Your task to perform on an android device: Show me popular videos on Youtube Image 0: 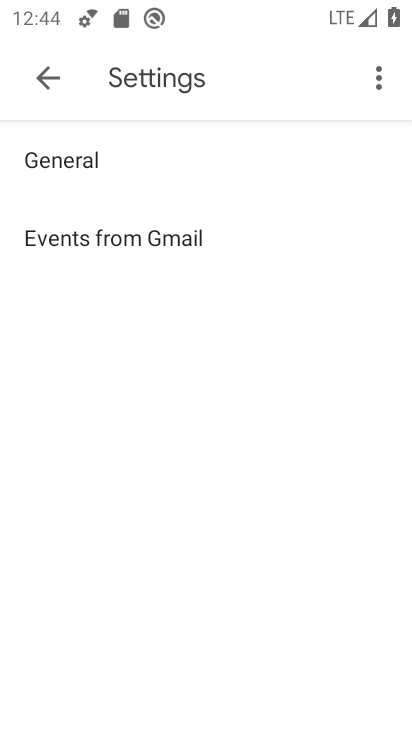
Step 0: press home button
Your task to perform on an android device: Show me popular videos on Youtube Image 1: 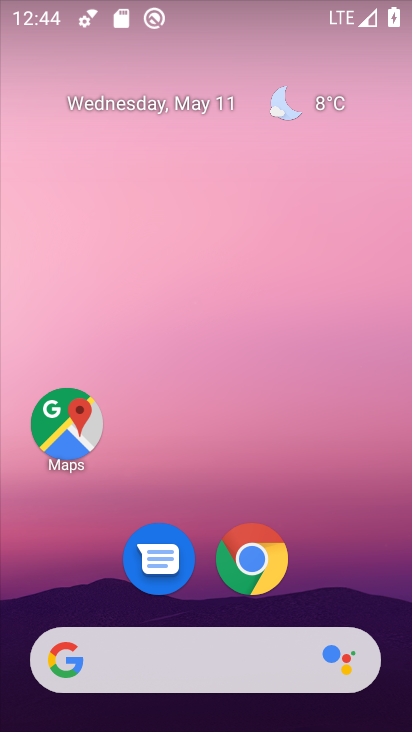
Step 1: drag from (194, 720) to (194, 147)
Your task to perform on an android device: Show me popular videos on Youtube Image 2: 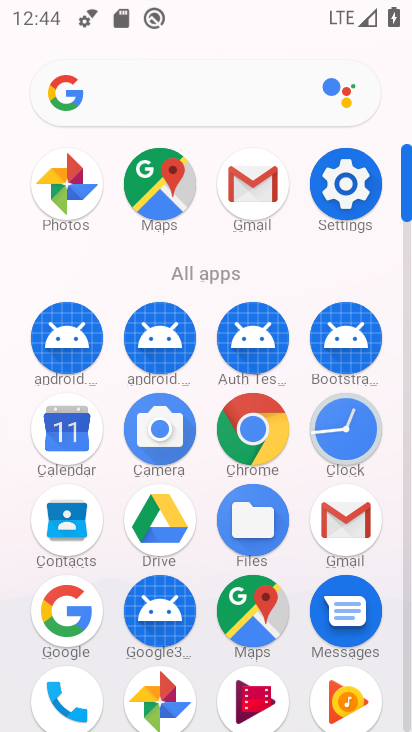
Step 2: drag from (204, 681) to (213, 192)
Your task to perform on an android device: Show me popular videos on Youtube Image 3: 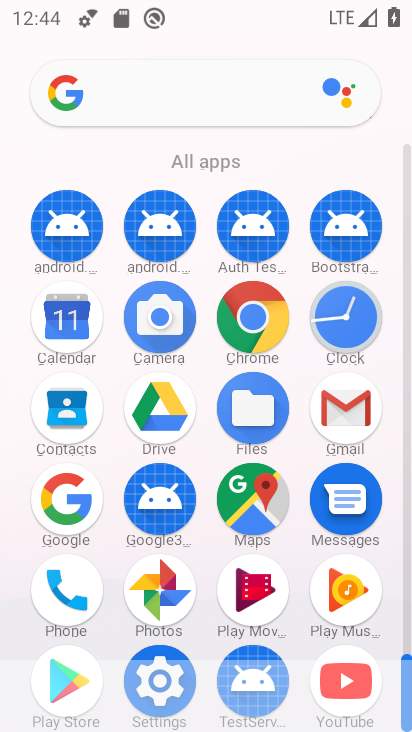
Step 3: drag from (352, 626) to (349, 239)
Your task to perform on an android device: Show me popular videos on Youtube Image 4: 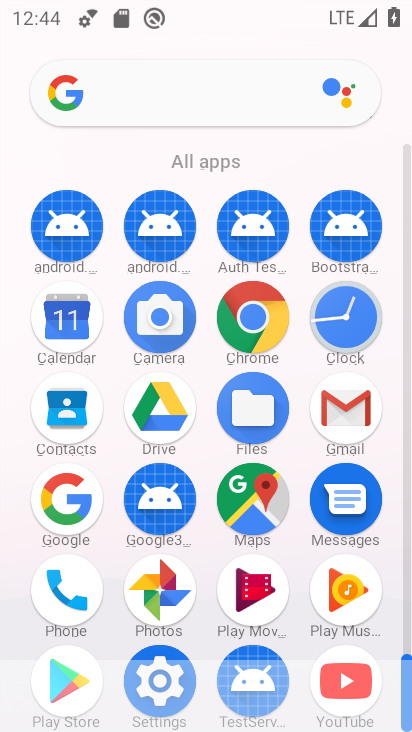
Step 4: click (351, 656)
Your task to perform on an android device: Show me popular videos on Youtube Image 5: 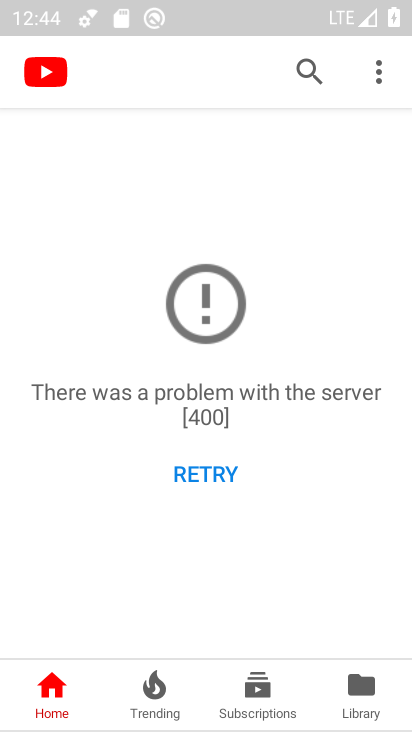
Step 5: click (359, 689)
Your task to perform on an android device: Show me popular videos on Youtube Image 6: 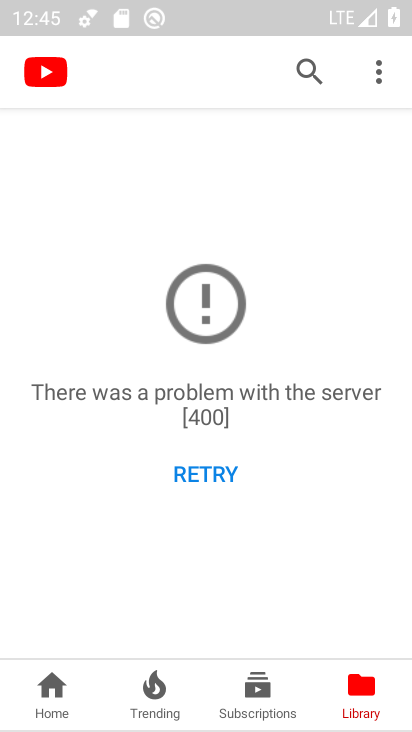
Step 6: task complete